Your task to perform on an android device: Go to wifi settings Image 0: 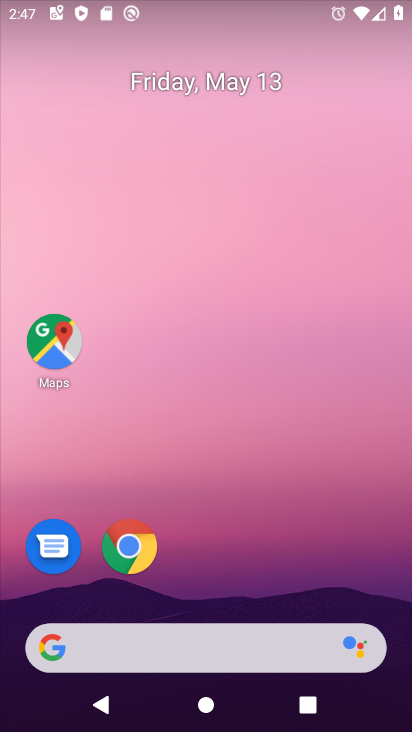
Step 0: drag from (307, 468) to (319, 55)
Your task to perform on an android device: Go to wifi settings Image 1: 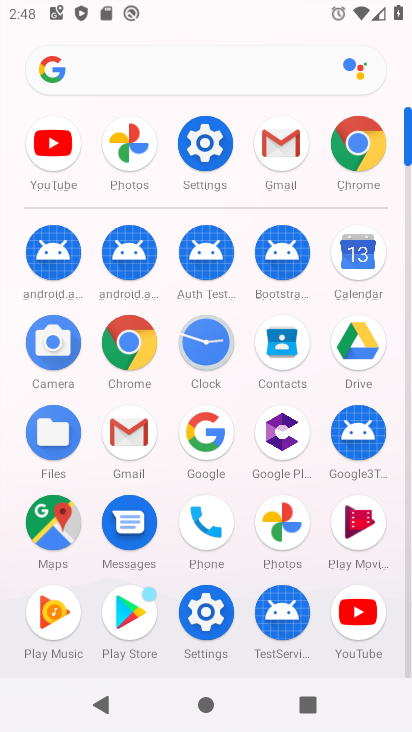
Step 1: click (228, 143)
Your task to perform on an android device: Go to wifi settings Image 2: 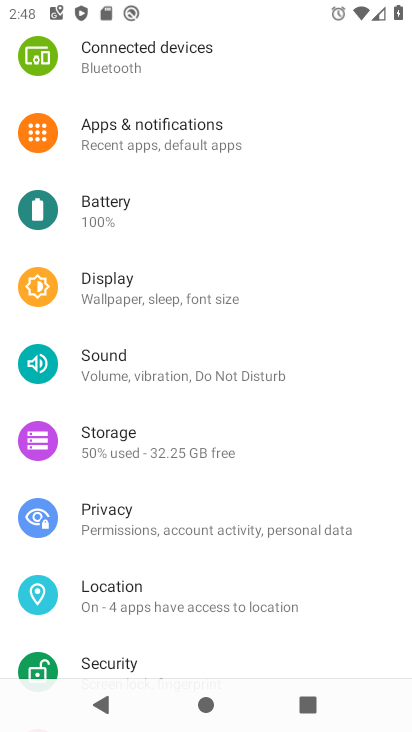
Step 2: drag from (276, 549) to (320, 126)
Your task to perform on an android device: Go to wifi settings Image 3: 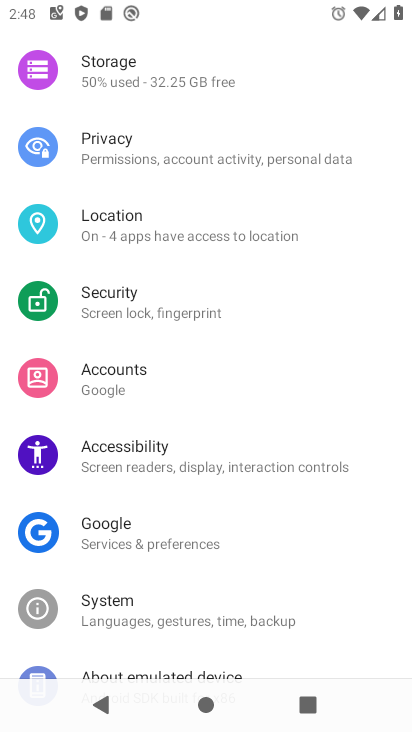
Step 3: drag from (242, 574) to (285, 708)
Your task to perform on an android device: Go to wifi settings Image 4: 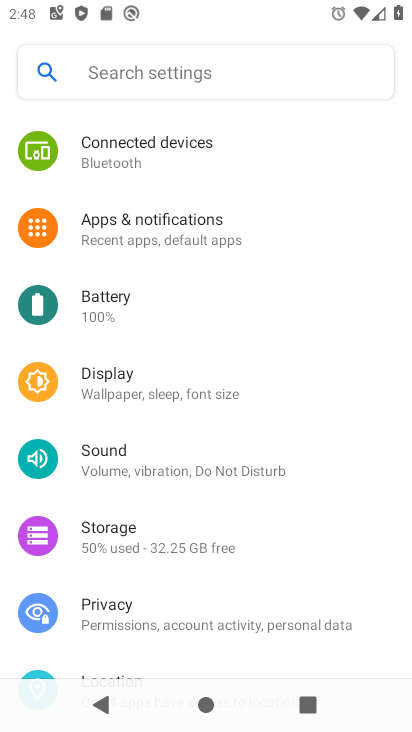
Step 4: drag from (253, 252) to (242, 705)
Your task to perform on an android device: Go to wifi settings Image 5: 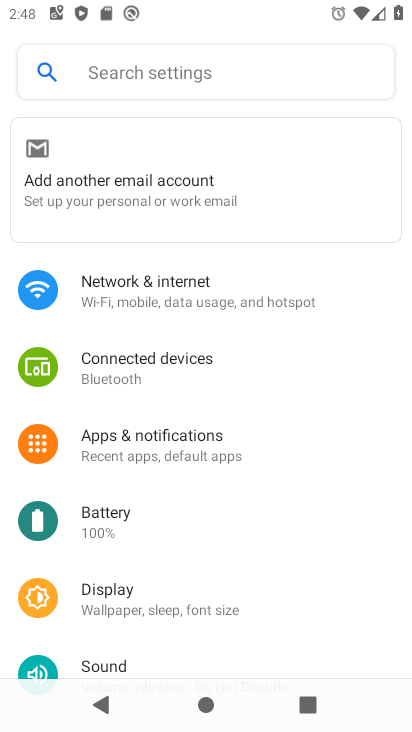
Step 5: click (202, 297)
Your task to perform on an android device: Go to wifi settings Image 6: 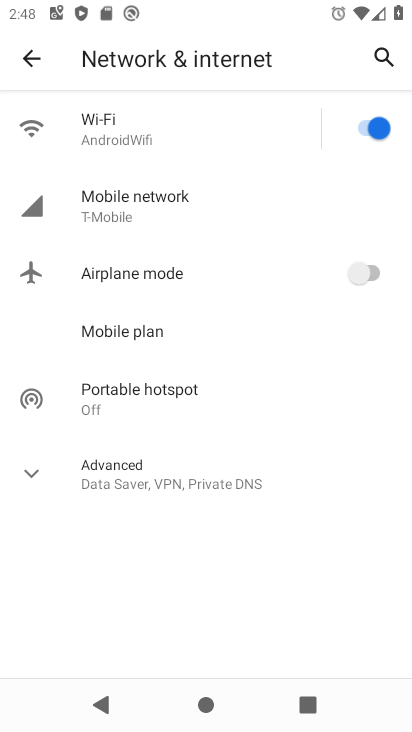
Step 6: click (176, 121)
Your task to perform on an android device: Go to wifi settings Image 7: 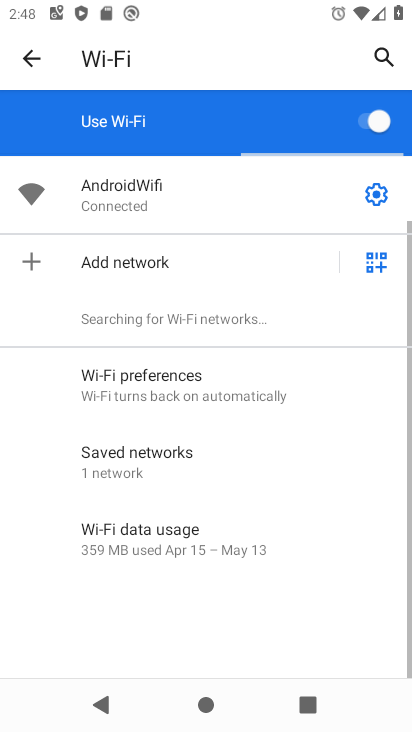
Step 7: click (384, 194)
Your task to perform on an android device: Go to wifi settings Image 8: 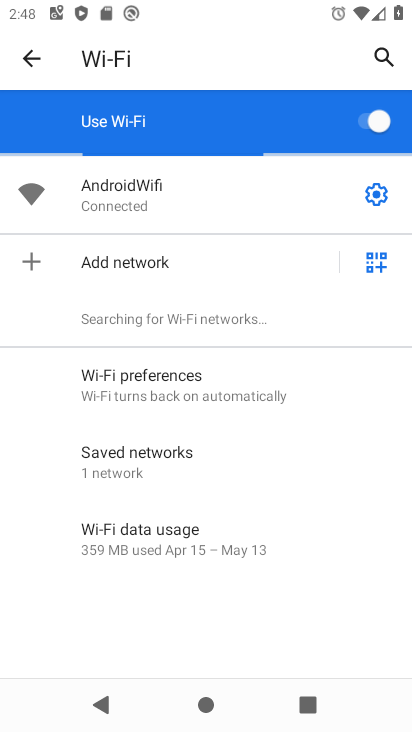
Step 8: click (372, 193)
Your task to perform on an android device: Go to wifi settings Image 9: 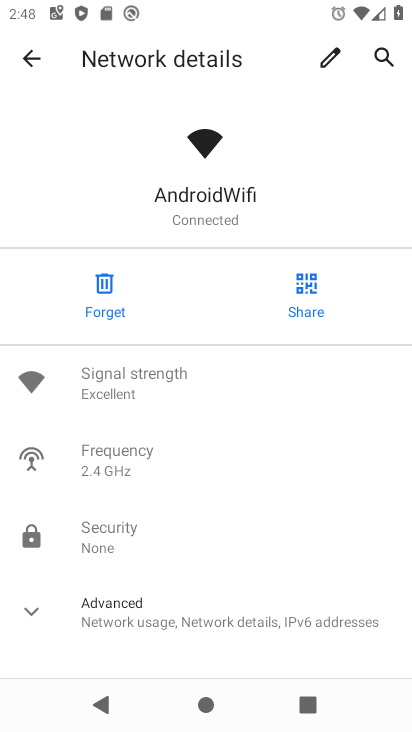
Step 9: task complete